Your task to perform on an android device: show emergency info Image 0: 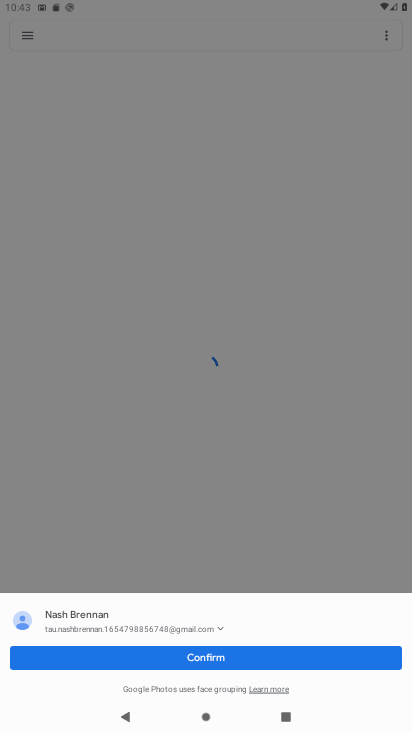
Step 0: press home button
Your task to perform on an android device: show emergency info Image 1: 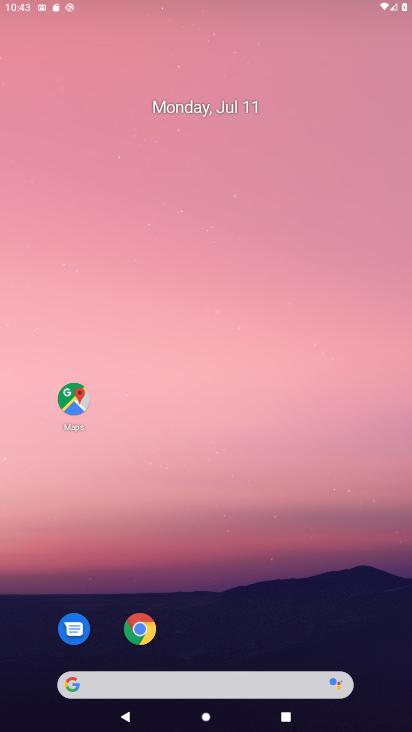
Step 1: drag from (215, 532) to (127, 6)
Your task to perform on an android device: show emergency info Image 2: 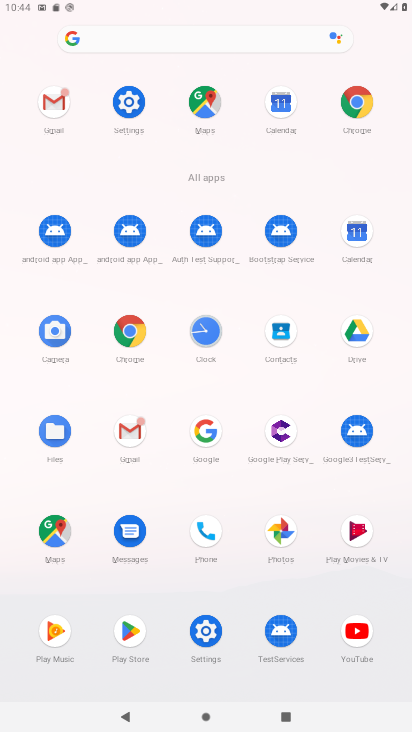
Step 2: click (222, 649)
Your task to perform on an android device: show emergency info Image 3: 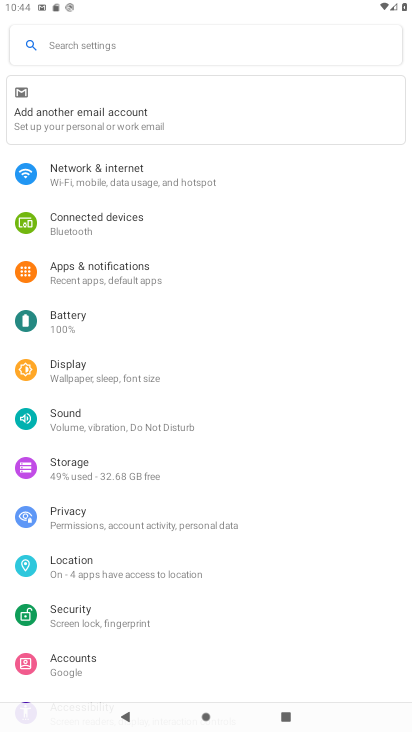
Step 3: drag from (162, 623) to (372, 146)
Your task to perform on an android device: show emergency info Image 4: 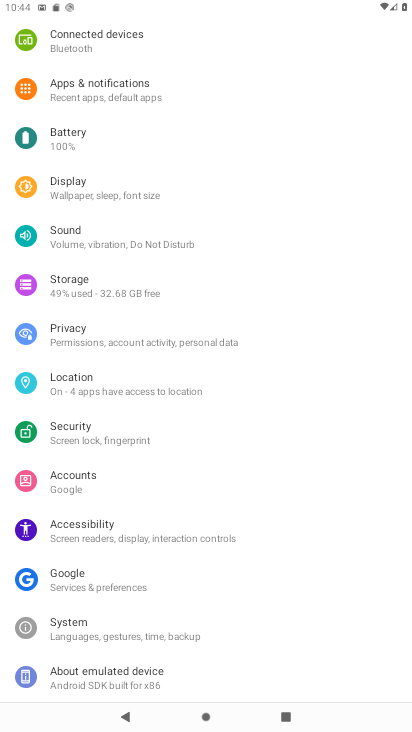
Step 4: click (125, 691)
Your task to perform on an android device: show emergency info Image 5: 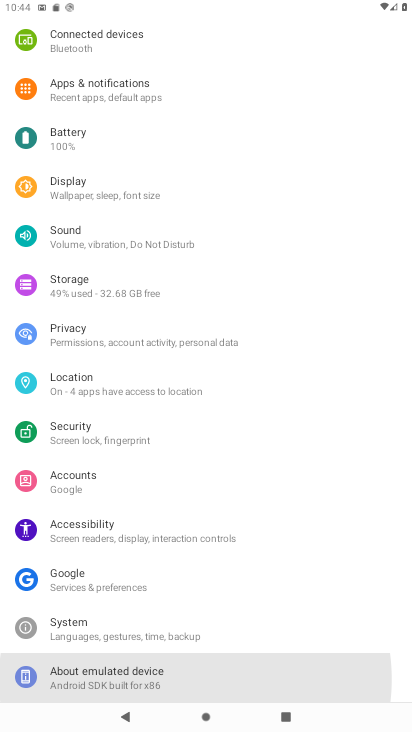
Step 5: click (123, 688)
Your task to perform on an android device: show emergency info Image 6: 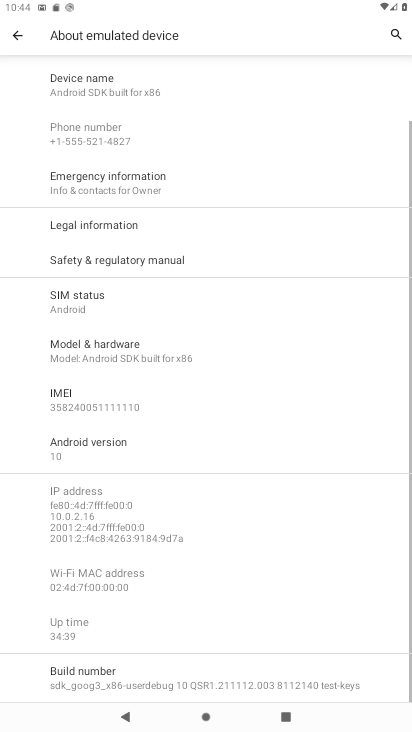
Step 6: click (146, 191)
Your task to perform on an android device: show emergency info Image 7: 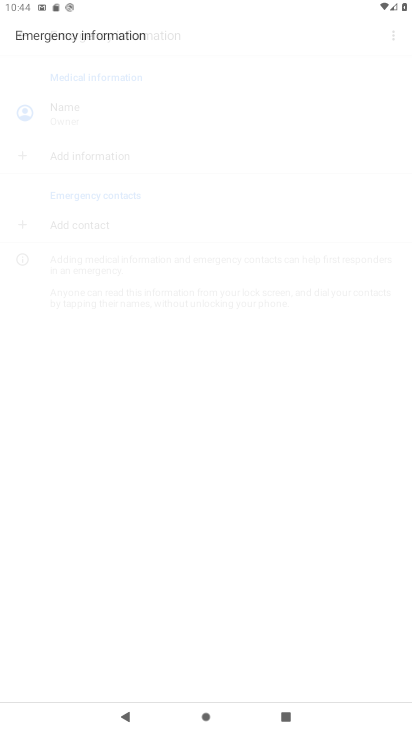
Step 7: task complete